Your task to perform on an android device: check data usage Image 0: 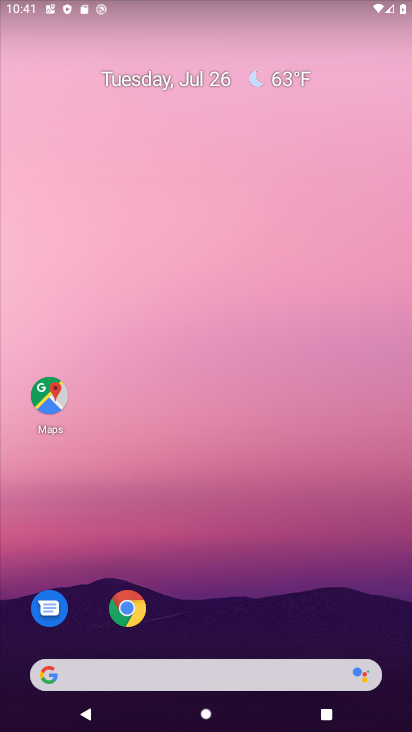
Step 0: press home button
Your task to perform on an android device: check data usage Image 1: 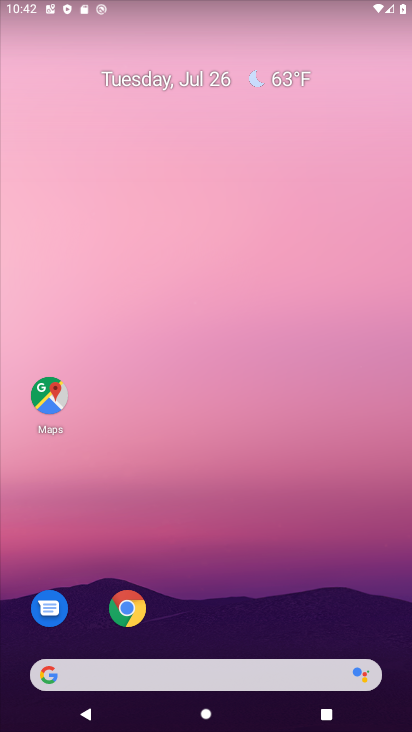
Step 1: drag from (235, 627) to (252, 143)
Your task to perform on an android device: check data usage Image 2: 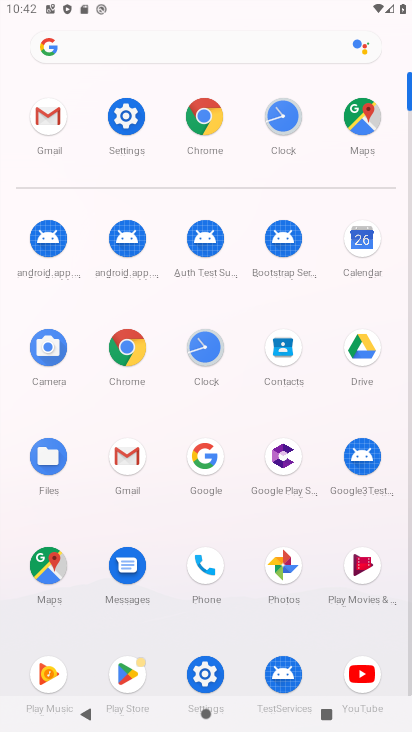
Step 2: click (130, 110)
Your task to perform on an android device: check data usage Image 3: 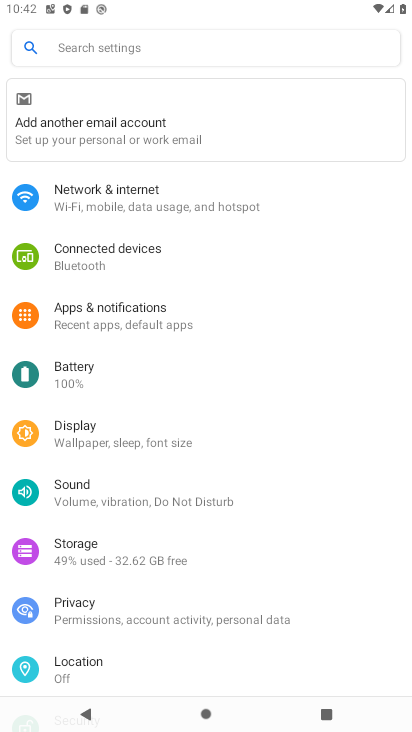
Step 3: click (110, 196)
Your task to perform on an android device: check data usage Image 4: 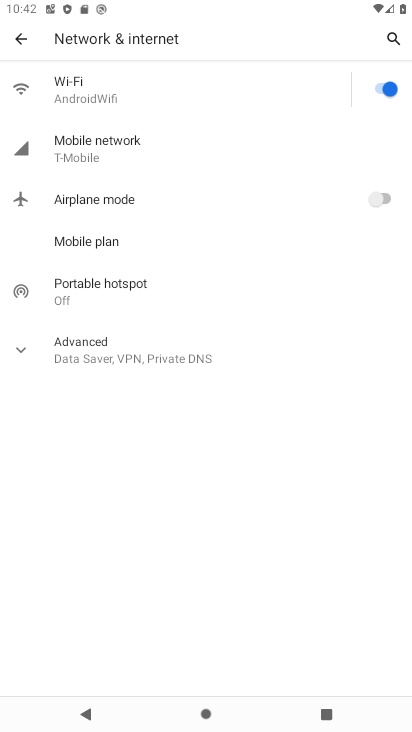
Step 4: click (85, 151)
Your task to perform on an android device: check data usage Image 5: 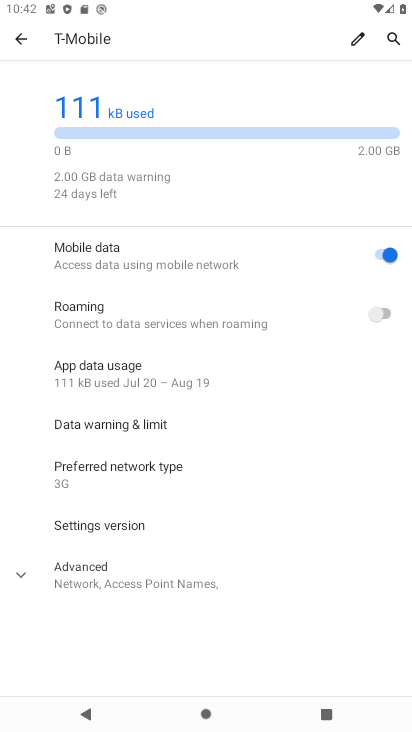
Step 5: click (108, 372)
Your task to perform on an android device: check data usage Image 6: 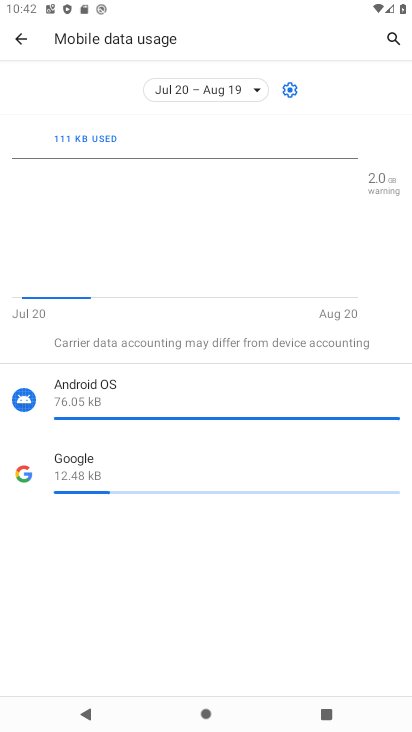
Step 6: task complete